Your task to perform on an android device: Search for Mexican restaurants on Maps Image 0: 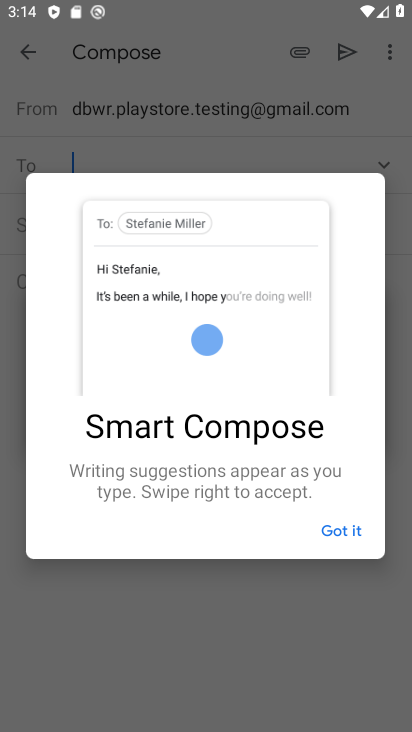
Step 0: press home button
Your task to perform on an android device: Search for Mexican restaurants on Maps Image 1: 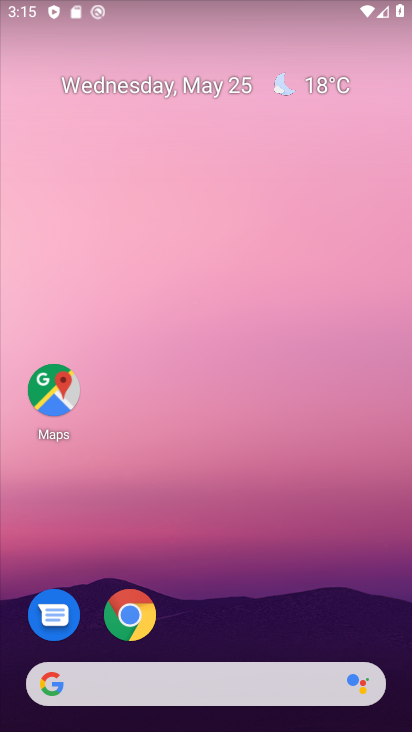
Step 1: click (51, 391)
Your task to perform on an android device: Search for Mexican restaurants on Maps Image 2: 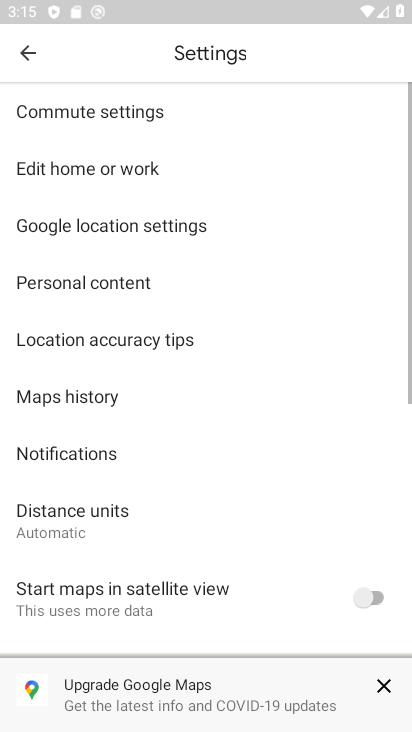
Step 2: click (35, 56)
Your task to perform on an android device: Search for Mexican restaurants on Maps Image 3: 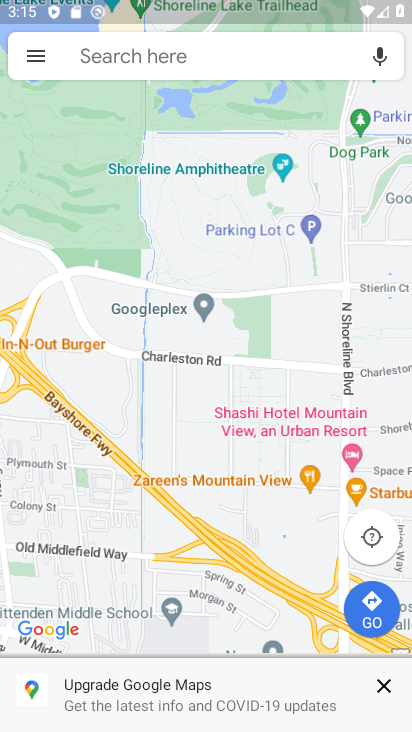
Step 3: click (165, 65)
Your task to perform on an android device: Search for Mexican restaurants on Maps Image 4: 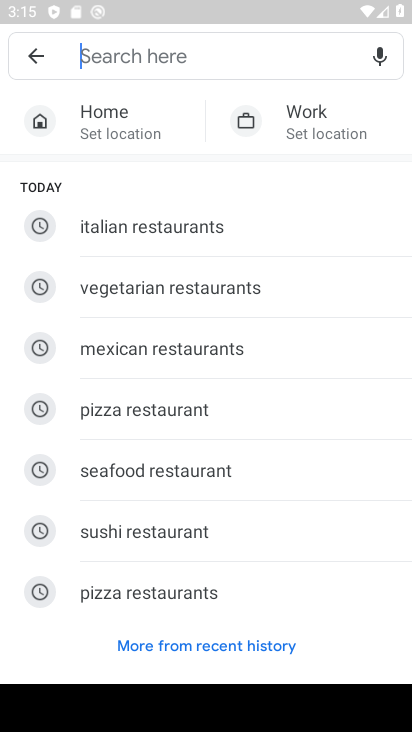
Step 4: click (153, 365)
Your task to perform on an android device: Search for Mexican restaurants on Maps Image 5: 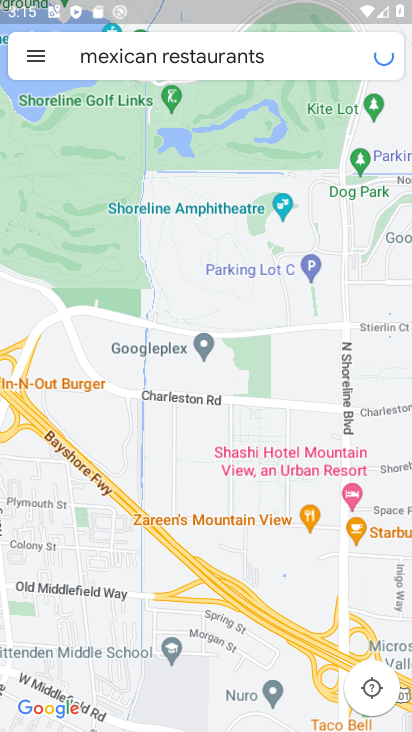
Step 5: task complete